Your task to perform on an android device: turn on javascript in the chrome app Image 0: 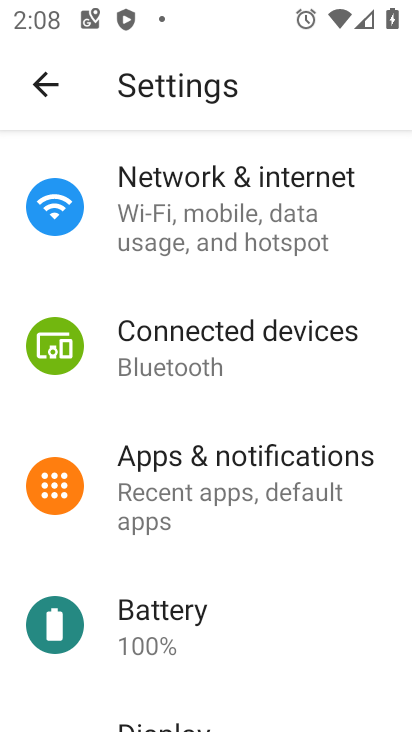
Step 0: press home button
Your task to perform on an android device: turn on javascript in the chrome app Image 1: 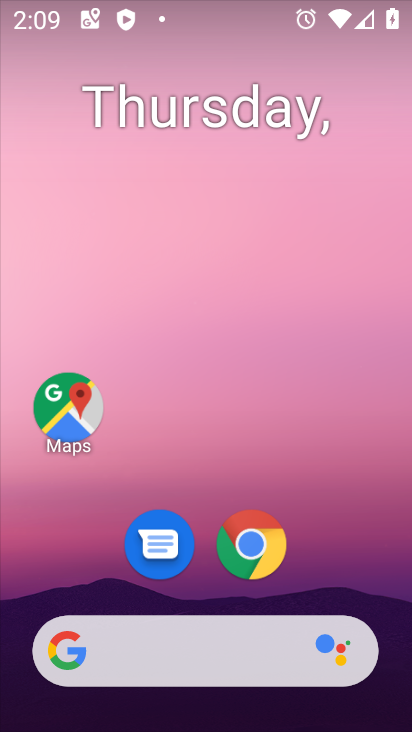
Step 1: click (262, 543)
Your task to perform on an android device: turn on javascript in the chrome app Image 2: 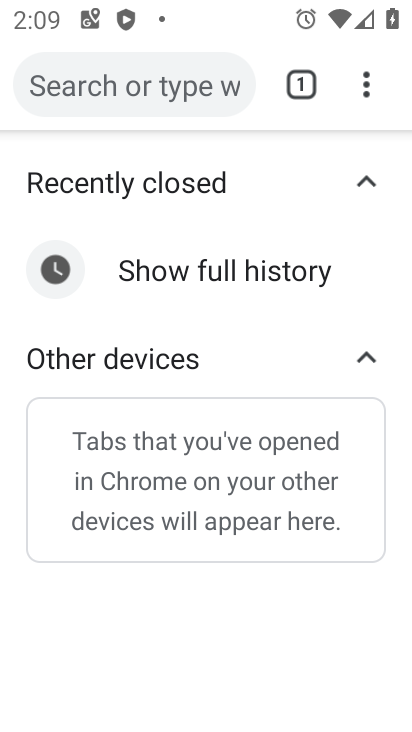
Step 2: click (373, 89)
Your task to perform on an android device: turn on javascript in the chrome app Image 3: 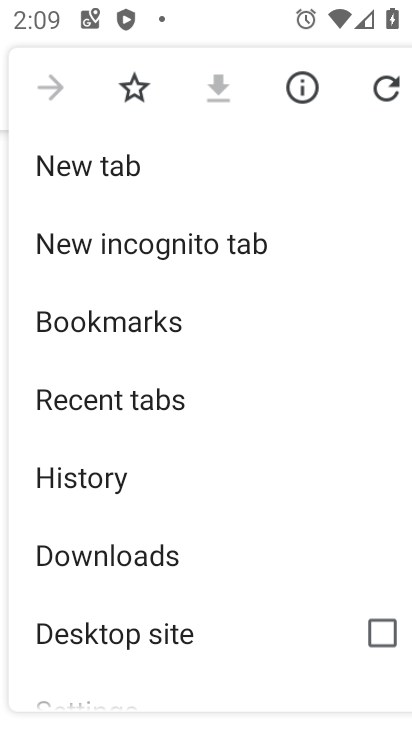
Step 3: drag from (260, 558) to (296, 204)
Your task to perform on an android device: turn on javascript in the chrome app Image 4: 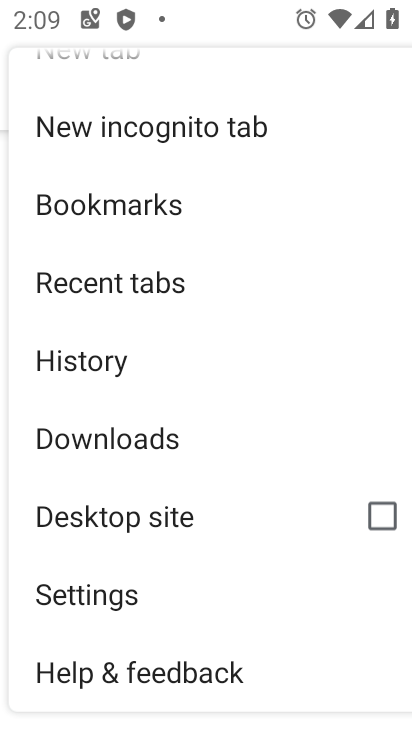
Step 4: click (157, 600)
Your task to perform on an android device: turn on javascript in the chrome app Image 5: 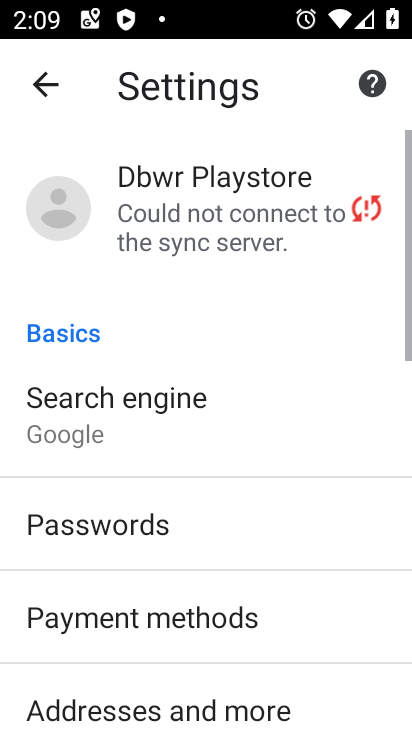
Step 5: drag from (156, 599) to (195, 215)
Your task to perform on an android device: turn on javascript in the chrome app Image 6: 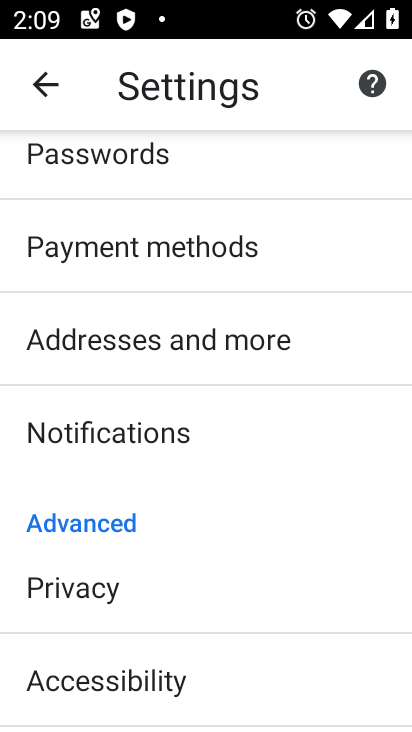
Step 6: drag from (178, 588) to (165, 557)
Your task to perform on an android device: turn on javascript in the chrome app Image 7: 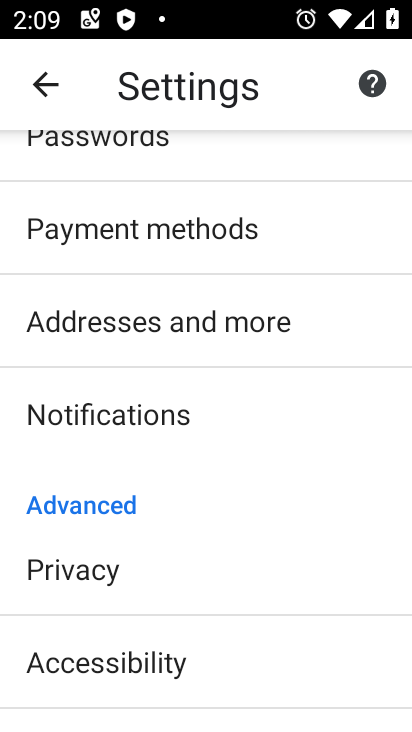
Step 7: drag from (245, 272) to (215, 523)
Your task to perform on an android device: turn on javascript in the chrome app Image 8: 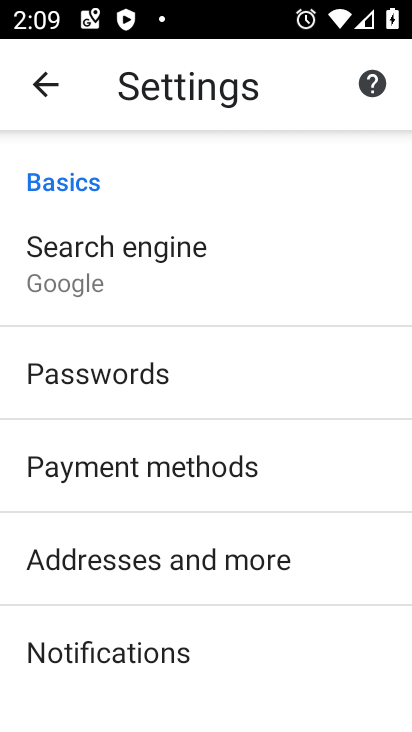
Step 8: drag from (214, 543) to (262, 218)
Your task to perform on an android device: turn on javascript in the chrome app Image 9: 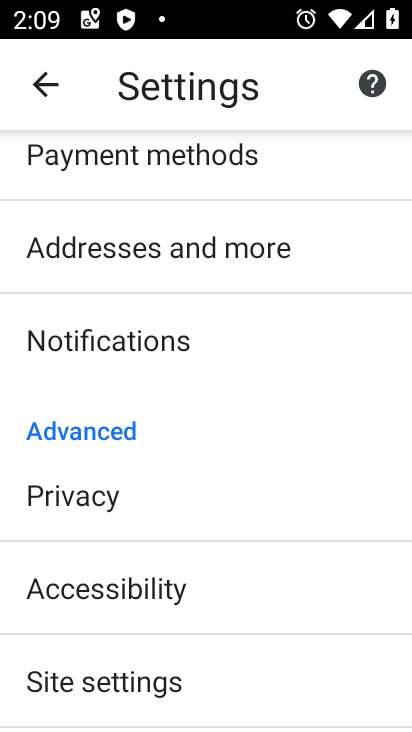
Step 9: click (181, 681)
Your task to perform on an android device: turn on javascript in the chrome app Image 10: 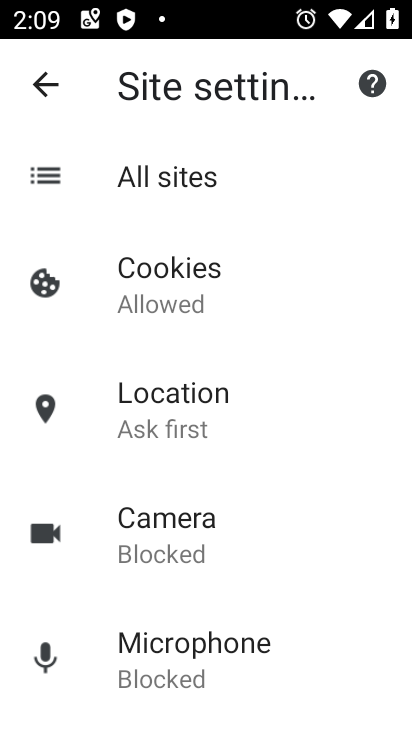
Step 10: drag from (236, 587) to (274, 269)
Your task to perform on an android device: turn on javascript in the chrome app Image 11: 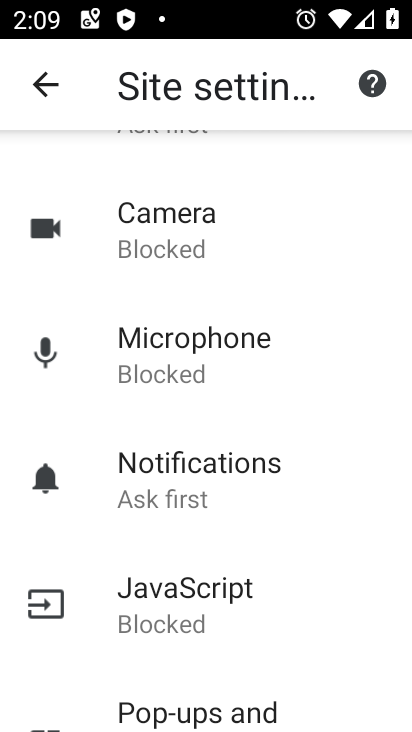
Step 11: click (274, 575)
Your task to perform on an android device: turn on javascript in the chrome app Image 12: 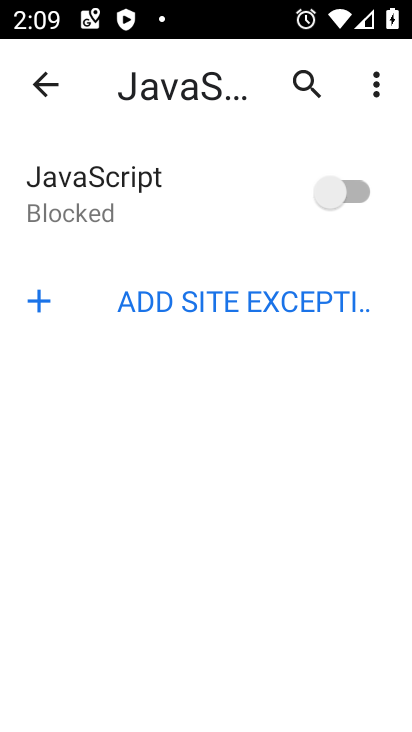
Step 12: click (356, 205)
Your task to perform on an android device: turn on javascript in the chrome app Image 13: 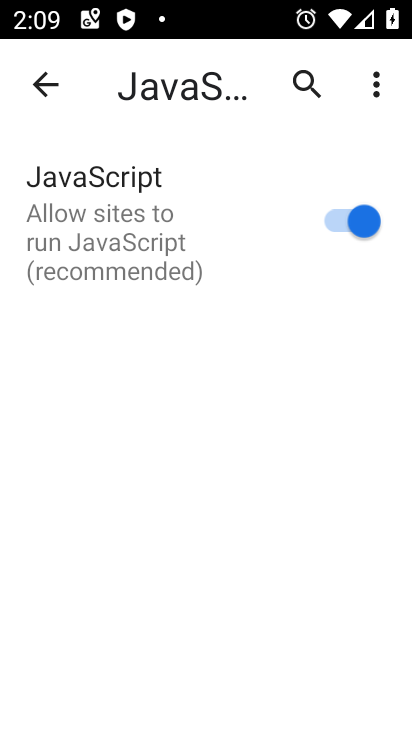
Step 13: task complete